Your task to perform on an android device: Open CNN.com Image 0: 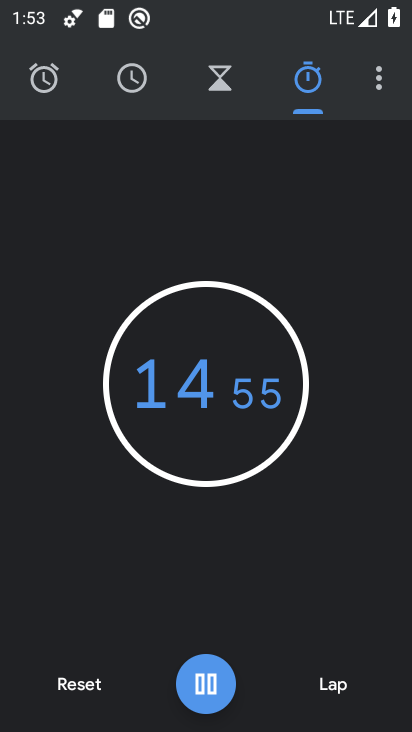
Step 0: press home button
Your task to perform on an android device: Open CNN.com Image 1: 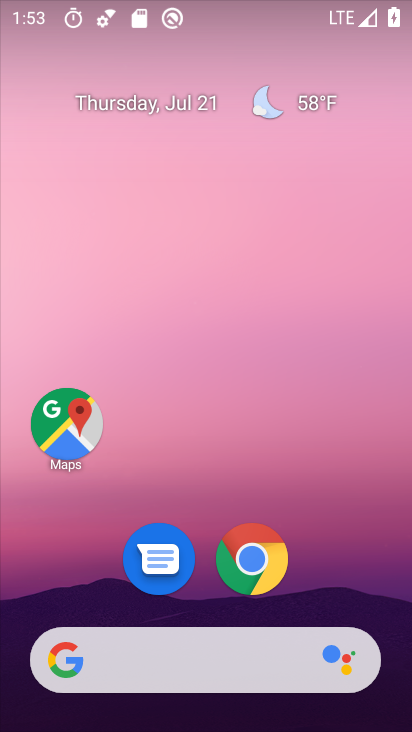
Step 1: drag from (363, 533) to (349, 105)
Your task to perform on an android device: Open CNN.com Image 2: 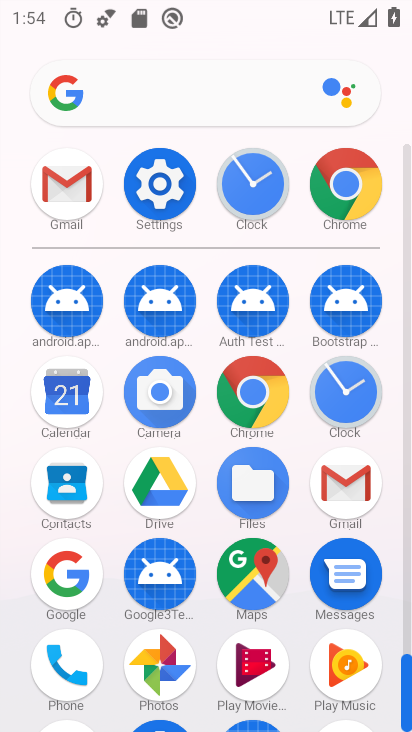
Step 2: click (242, 406)
Your task to perform on an android device: Open CNN.com Image 3: 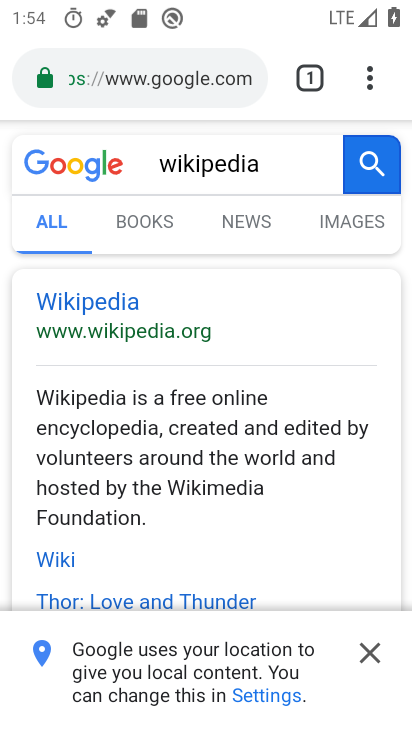
Step 3: click (216, 79)
Your task to perform on an android device: Open CNN.com Image 4: 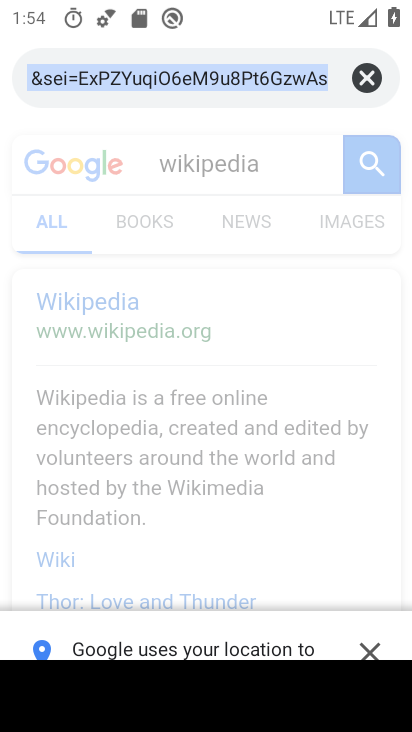
Step 4: type "cnn.com"
Your task to perform on an android device: Open CNN.com Image 5: 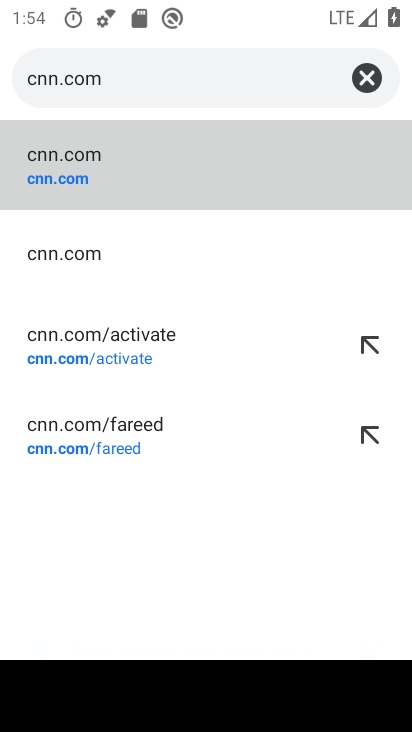
Step 5: click (131, 152)
Your task to perform on an android device: Open CNN.com Image 6: 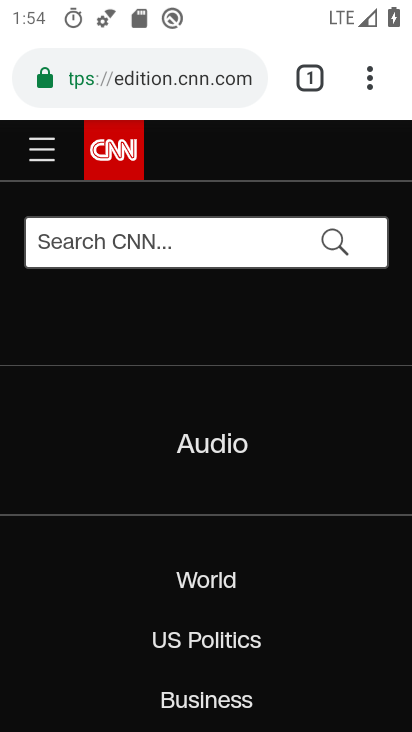
Step 6: task complete